Your task to perform on an android device: Open calendar and show me the second week of next month Image 0: 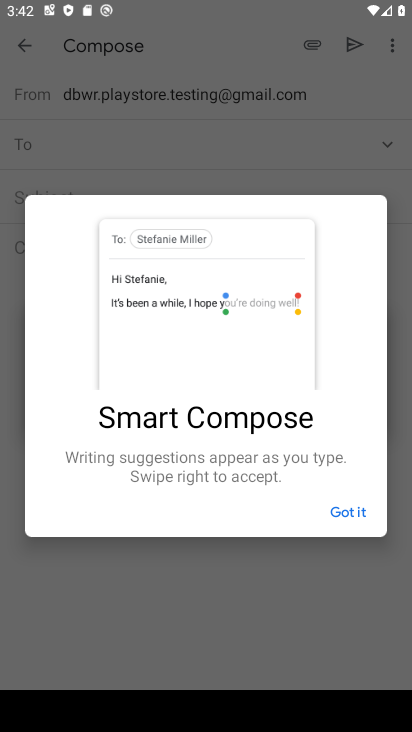
Step 0: press home button
Your task to perform on an android device: Open calendar and show me the second week of next month Image 1: 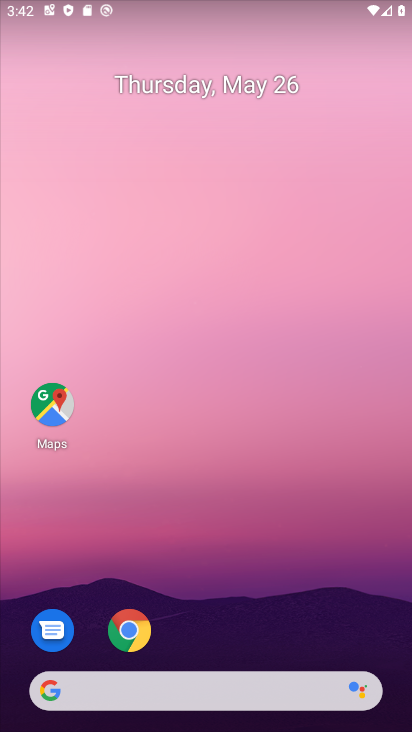
Step 1: drag from (231, 604) to (199, 88)
Your task to perform on an android device: Open calendar and show me the second week of next month Image 2: 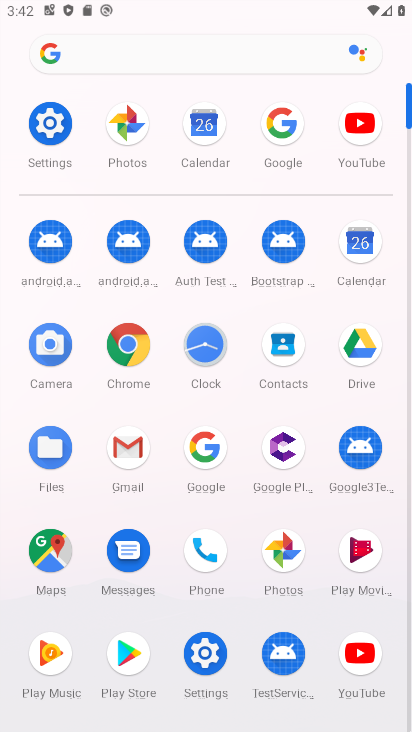
Step 2: click (205, 124)
Your task to perform on an android device: Open calendar and show me the second week of next month Image 3: 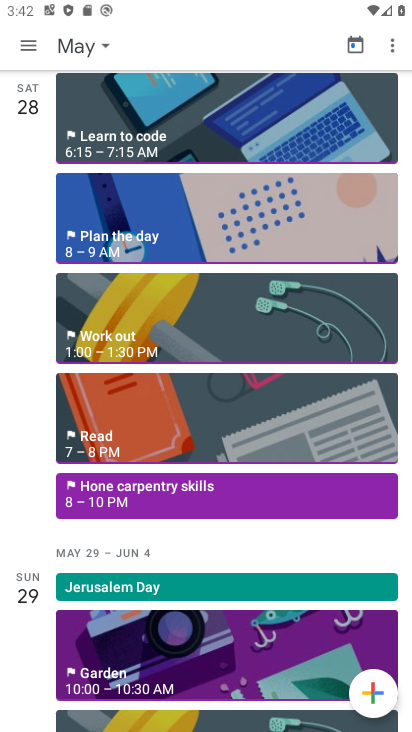
Step 3: click (359, 43)
Your task to perform on an android device: Open calendar and show me the second week of next month Image 4: 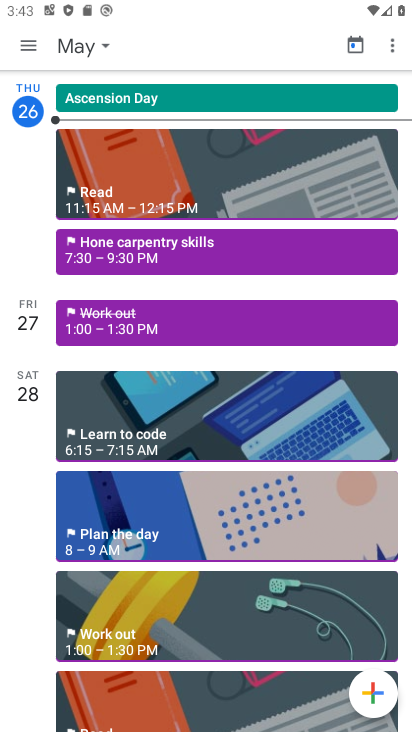
Step 4: click (105, 45)
Your task to perform on an android device: Open calendar and show me the second week of next month Image 5: 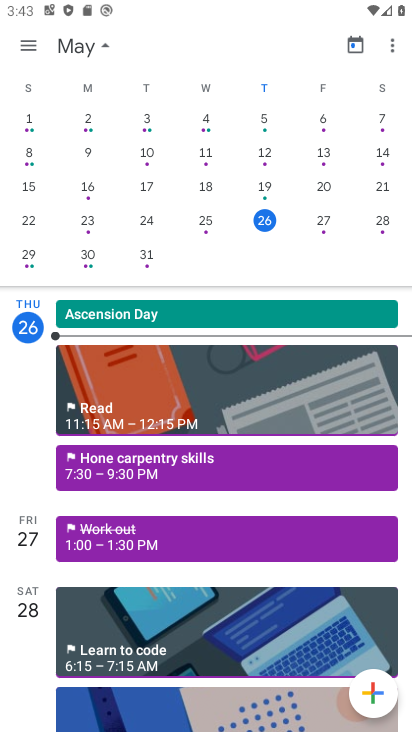
Step 5: drag from (367, 193) to (44, 211)
Your task to perform on an android device: Open calendar and show me the second week of next month Image 6: 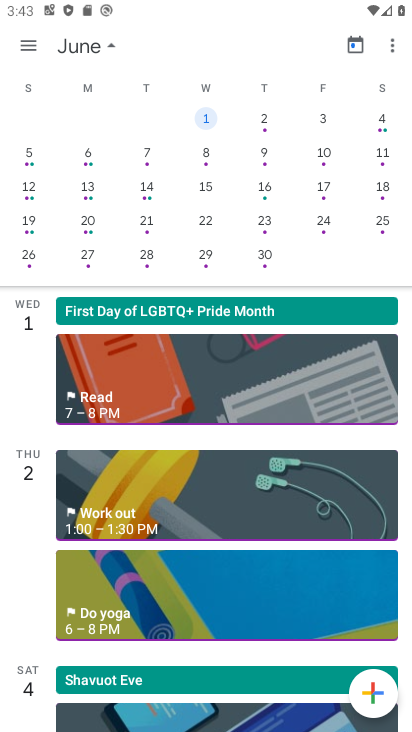
Step 6: click (98, 194)
Your task to perform on an android device: Open calendar and show me the second week of next month Image 7: 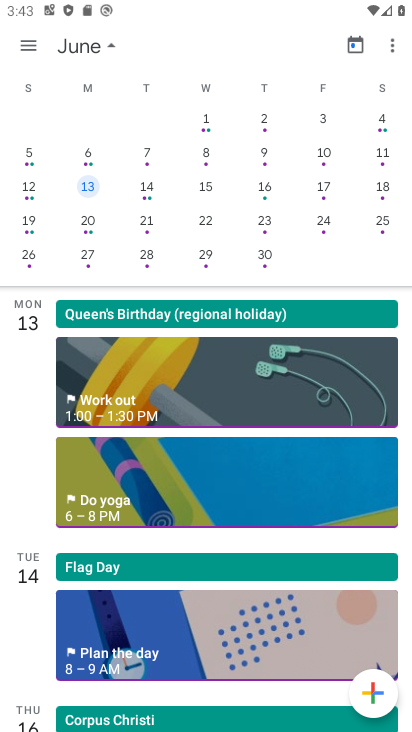
Step 7: click (34, 48)
Your task to perform on an android device: Open calendar and show me the second week of next month Image 8: 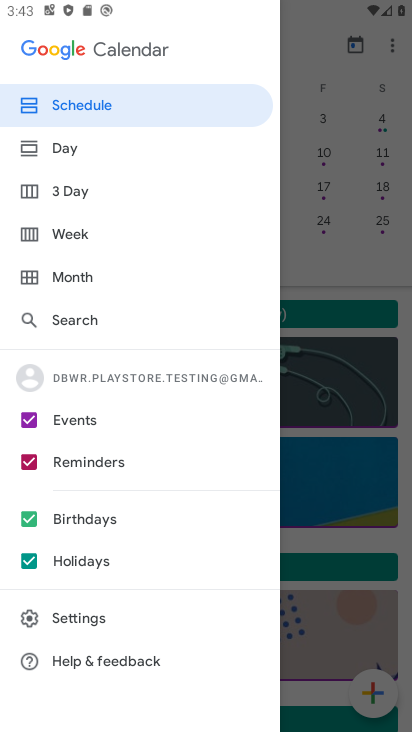
Step 8: click (61, 229)
Your task to perform on an android device: Open calendar and show me the second week of next month Image 9: 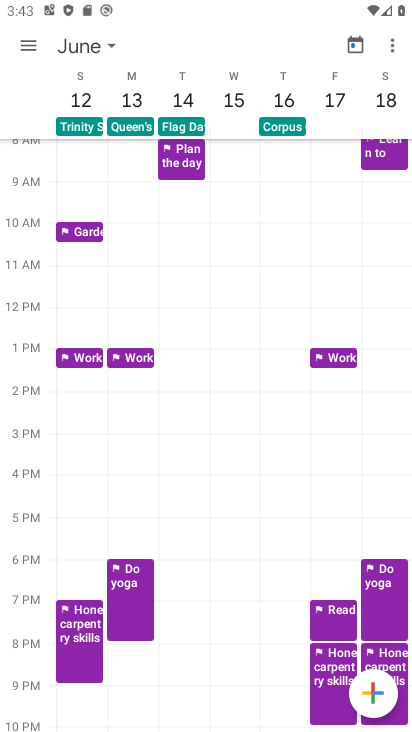
Step 9: task complete